Your task to perform on an android device: change the clock display to digital Image 0: 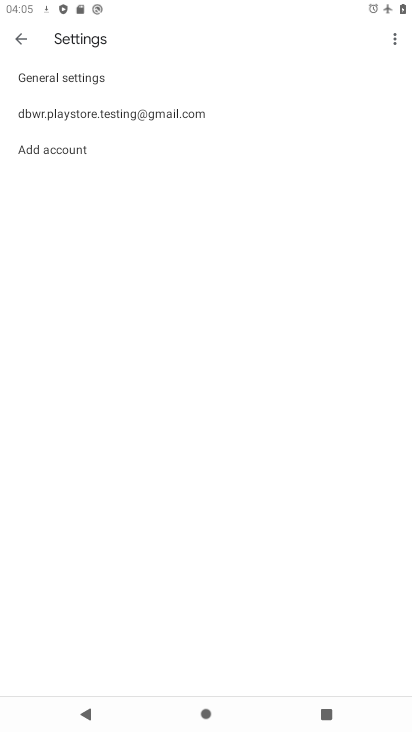
Step 0: press home button
Your task to perform on an android device: change the clock display to digital Image 1: 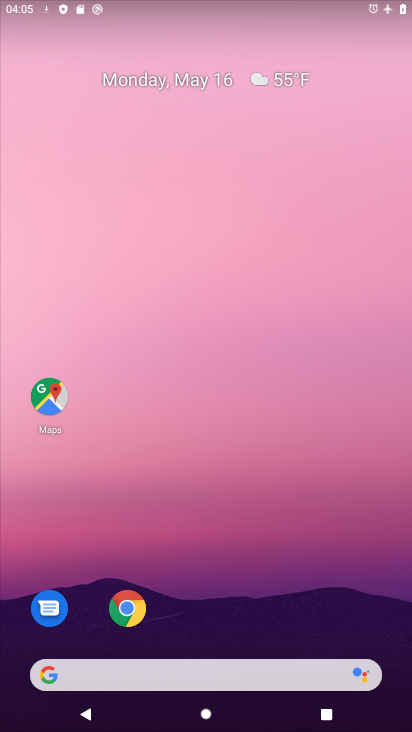
Step 1: drag from (181, 620) to (182, 254)
Your task to perform on an android device: change the clock display to digital Image 2: 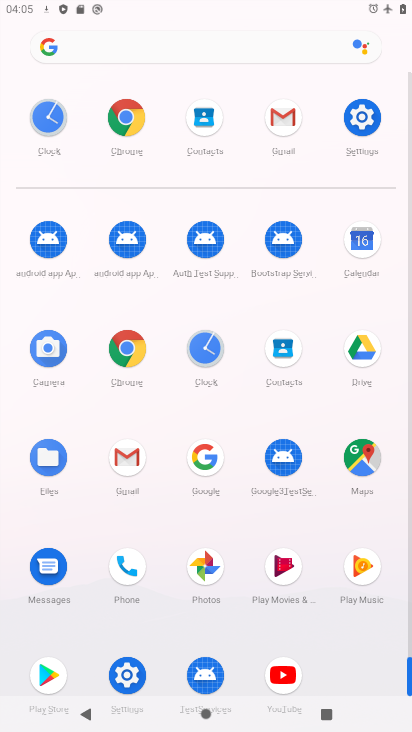
Step 2: click (191, 346)
Your task to perform on an android device: change the clock display to digital Image 3: 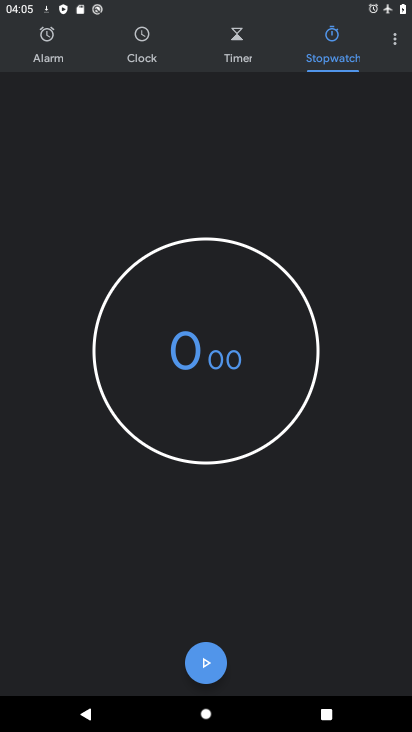
Step 3: click (391, 44)
Your task to perform on an android device: change the clock display to digital Image 4: 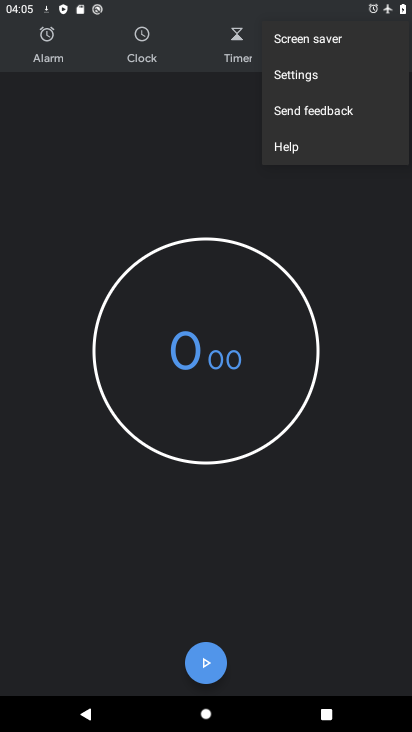
Step 4: click (310, 79)
Your task to perform on an android device: change the clock display to digital Image 5: 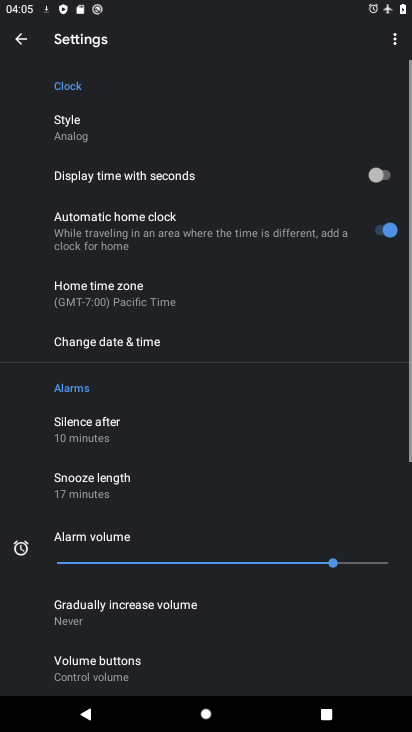
Step 5: click (102, 132)
Your task to perform on an android device: change the clock display to digital Image 6: 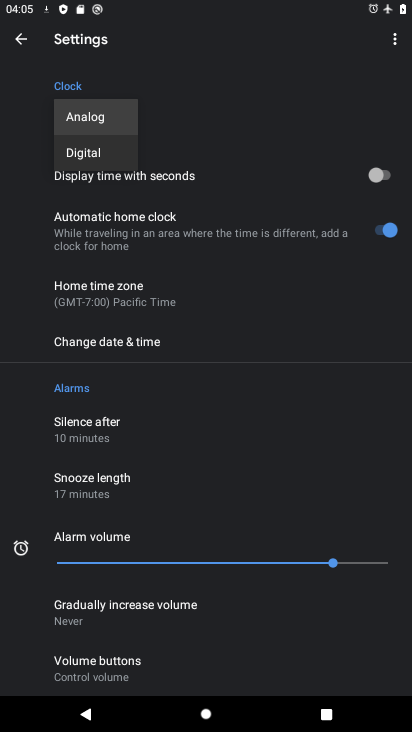
Step 6: click (92, 144)
Your task to perform on an android device: change the clock display to digital Image 7: 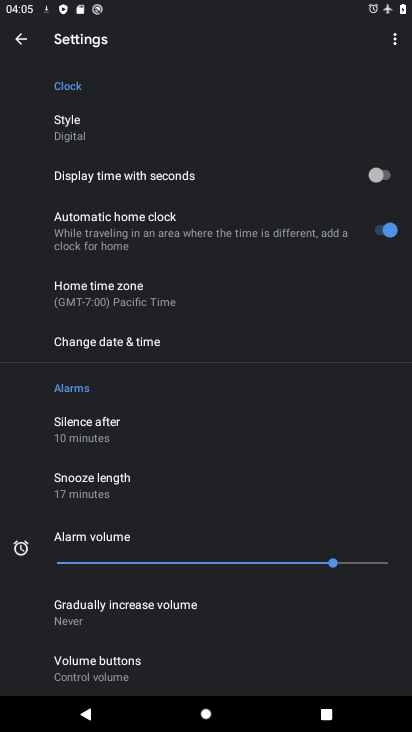
Step 7: task complete